Your task to perform on an android device: Search for Italian restaurants on Maps Image 0: 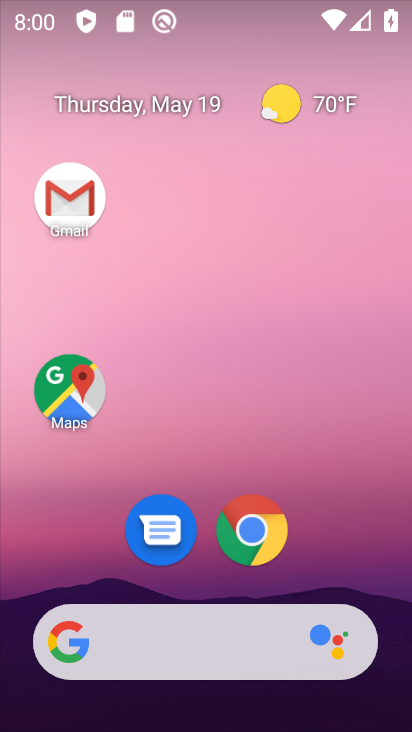
Step 0: click (61, 415)
Your task to perform on an android device: Search for Italian restaurants on Maps Image 1: 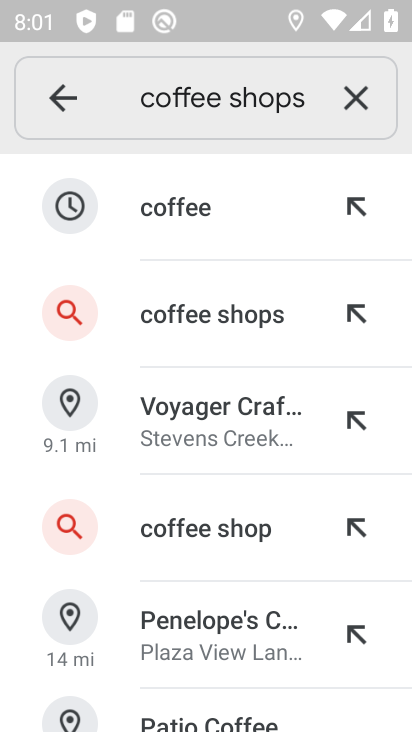
Step 1: click (358, 94)
Your task to perform on an android device: Search for Italian restaurants on Maps Image 2: 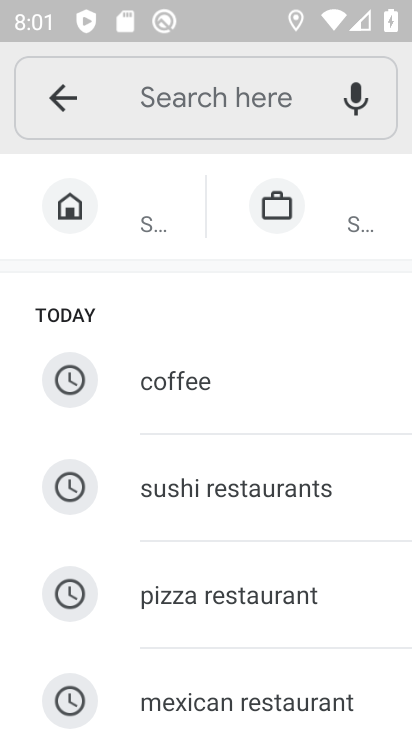
Step 2: click (175, 118)
Your task to perform on an android device: Search for Italian restaurants on Maps Image 3: 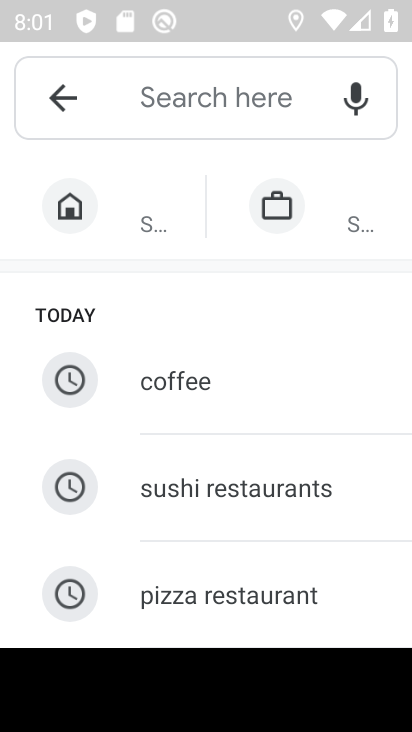
Step 3: drag from (266, 541) to (257, 175)
Your task to perform on an android device: Search for Italian restaurants on Maps Image 4: 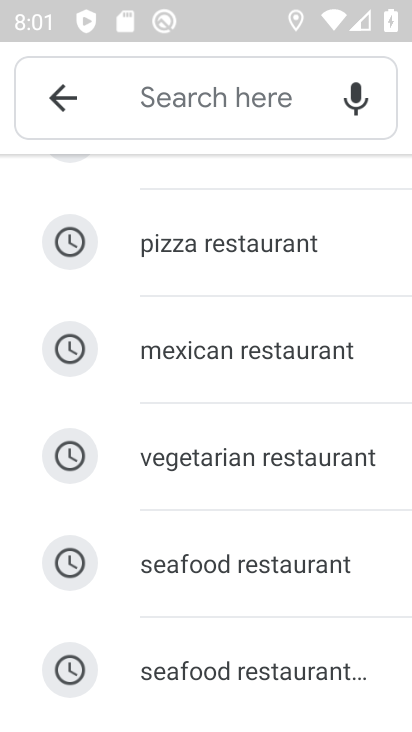
Step 4: drag from (203, 548) to (249, 217)
Your task to perform on an android device: Search for Italian restaurants on Maps Image 5: 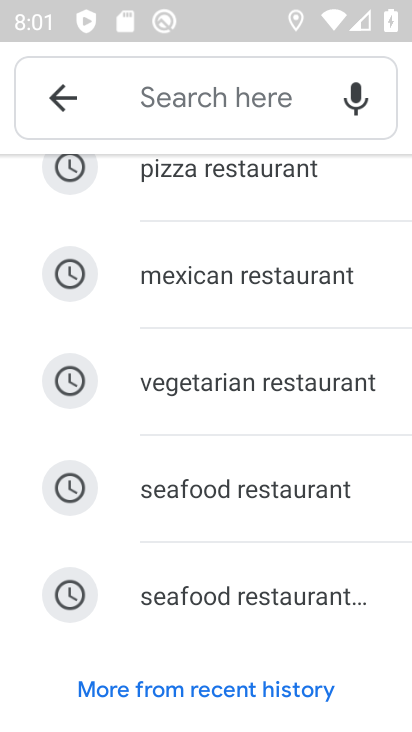
Step 5: click (200, 104)
Your task to perform on an android device: Search for Italian restaurants on Maps Image 6: 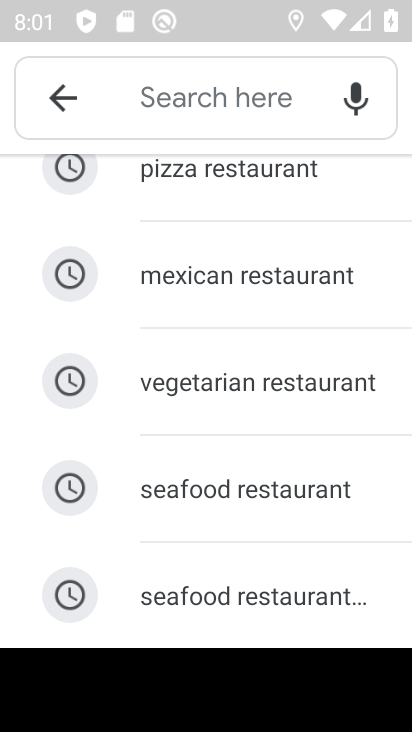
Step 6: type "italian restaurants"
Your task to perform on an android device: Search for Italian restaurants on Maps Image 7: 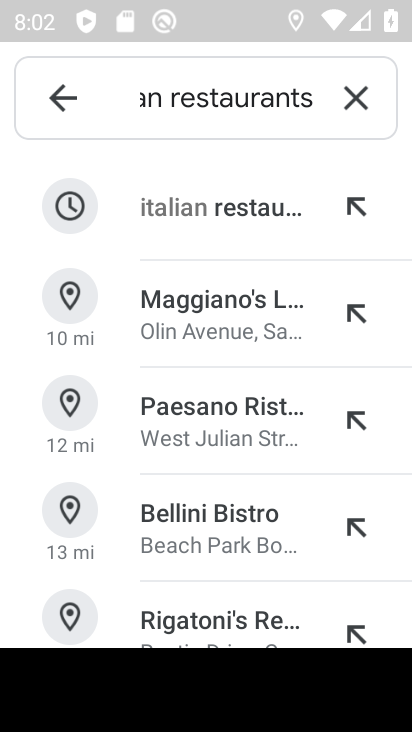
Step 7: task complete